Your task to perform on an android device: turn on notifications settings in the gmail app Image 0: 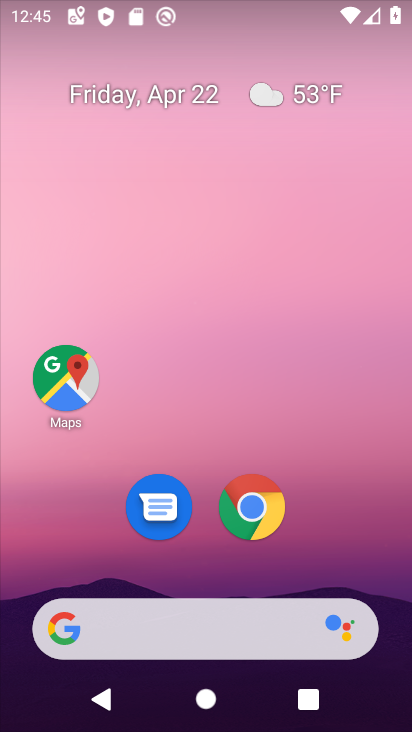
Step 0: drag from (318, 477) to (280, 63)
Your task to perform on an android device: turn on notifications settings in the gmail app Image 1: 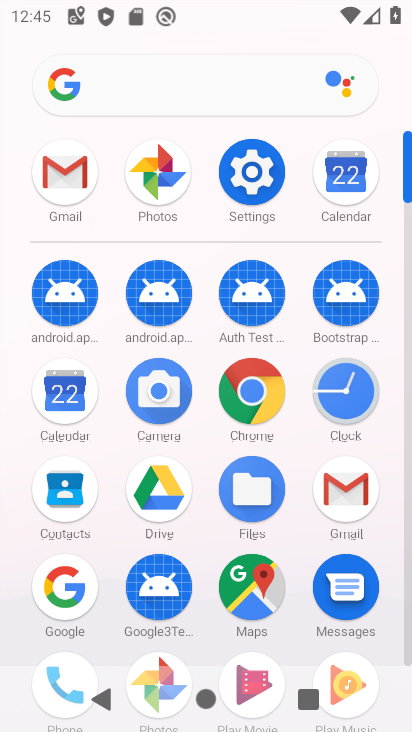
Step 1: click (352, 489)
Your task to perform on an android device: turn on notifications settings in the gmail app Image 2: 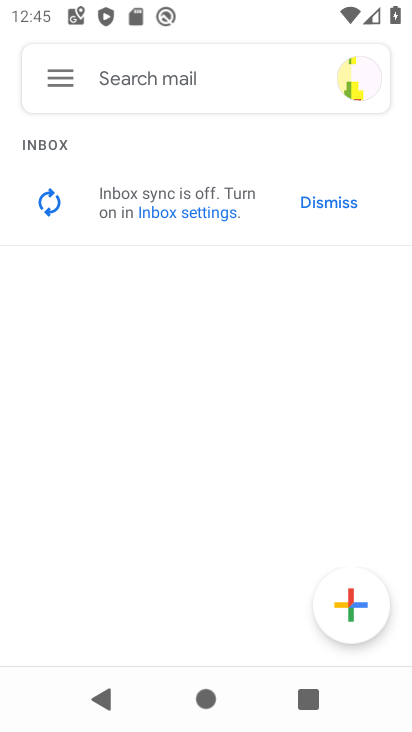
Step 2: click (61, 76)
Your task to perform on an android device: turn on notifications settings in the gmail app Image 3: 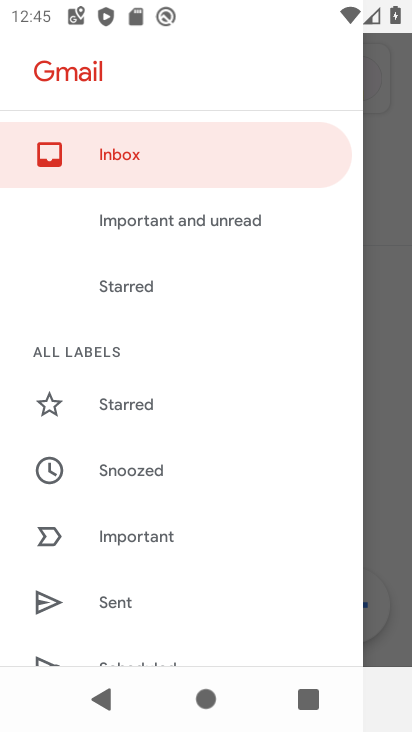
Step 3: drag from (199, 635) to (211, 200)
Your task to perform on an android device: turn on notifications settings in the gmail app Image 4: 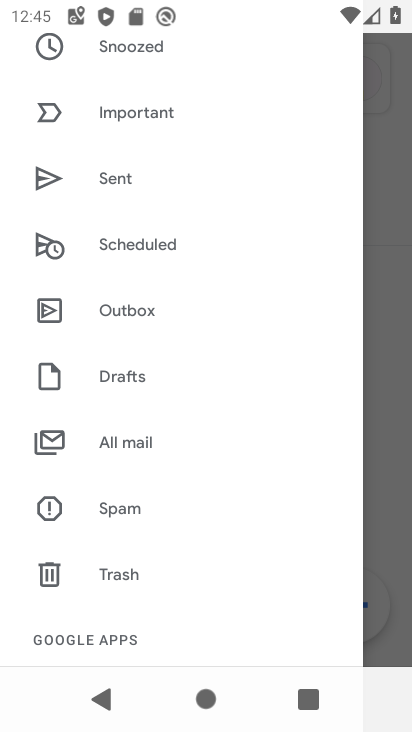
Step 4: drag from (132, 620) to (140, 150)
Your task to perform on an android device: turn on notifications settings in the gmail app Image 5: 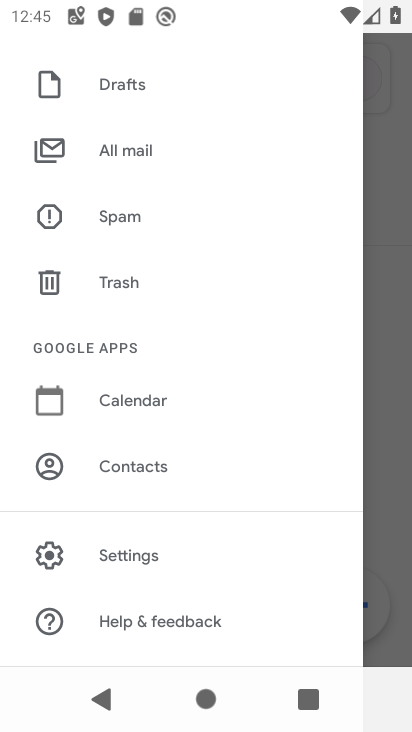
Step 5: click (116, 556)
Your task to perform on an android device: turn on notifications settings in the gmail app Image 6: 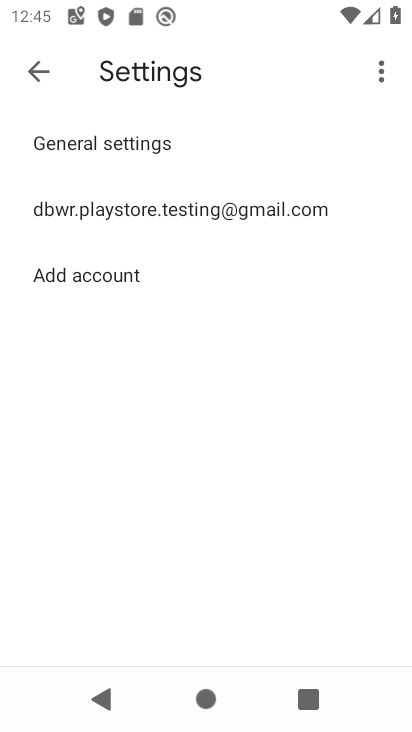
Step 6: click (115, 212)
Your task to perform on an android device: turn on notifications settings in the gmail app Image 7: 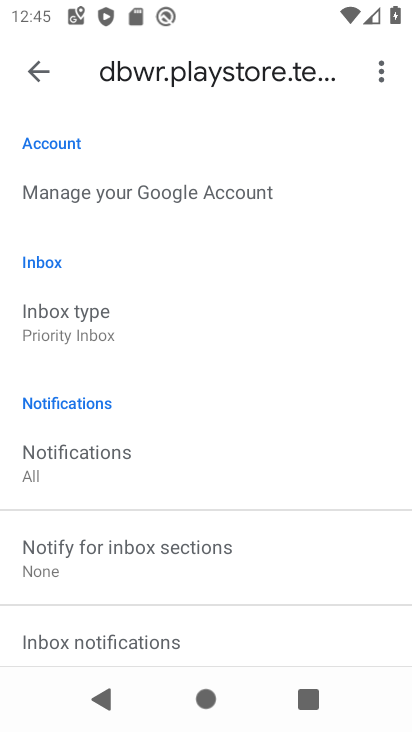
Step 7: drag from (130, 592) to (170, 280)
Your task to perform on an android device: turn on notifications settings in the gmail app Image 8: 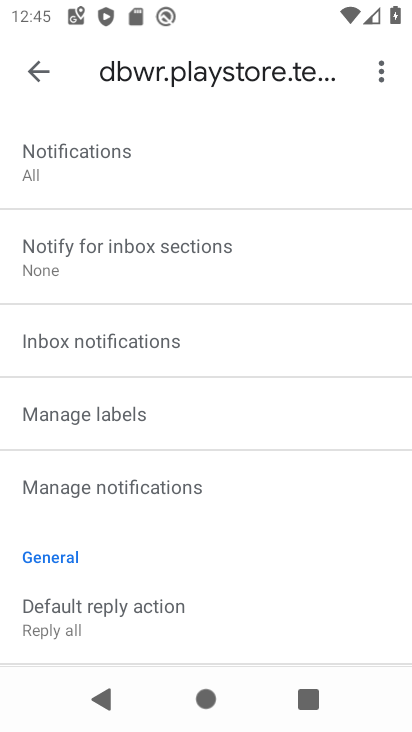
Step 8: click (106, 476)
Your task to perform on an android device: turn on notifications settings in the gmail app Image 9: 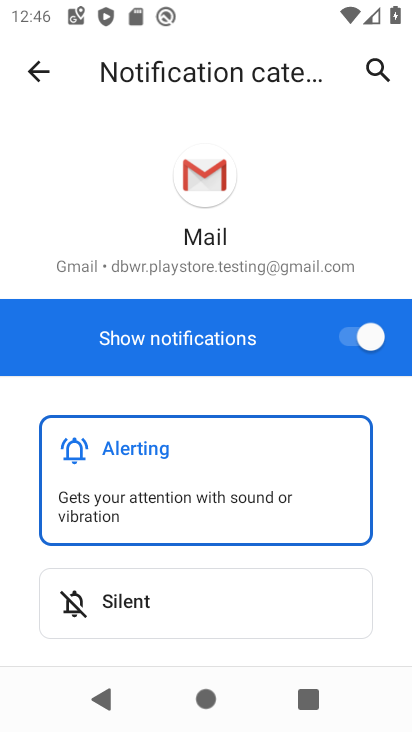
Step 9: task complete